Your task to perform on an android device: turn on showing notifications on the lock screen Image 0: 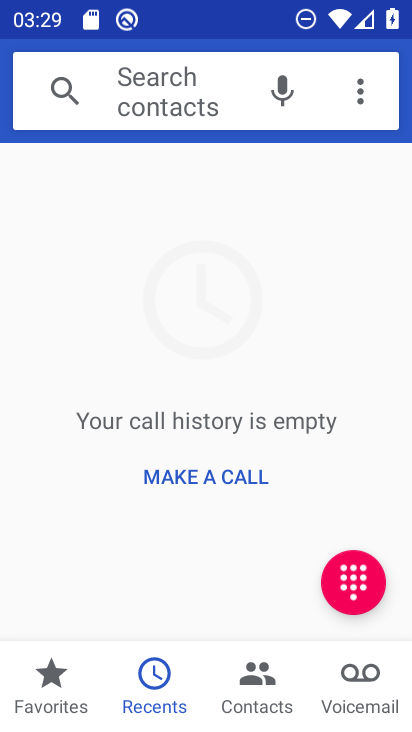
Step 0: press home button
Your task to perform on an android device: turn on showing notifications on the lock screen Image 1: 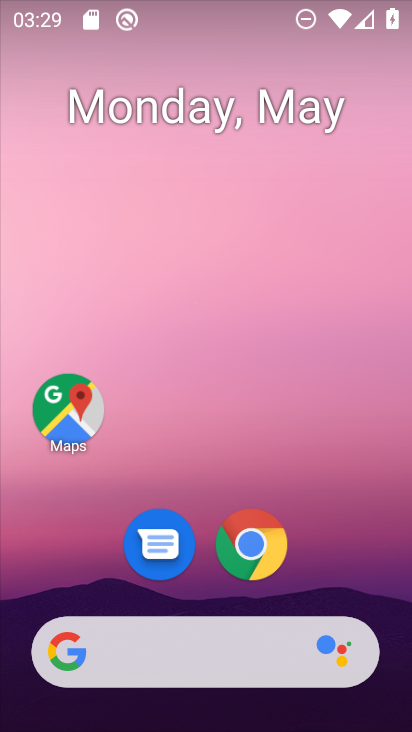
Step 1: drag from (351, 575) to (363, 120)
Your task to perform on an android device: turn on showing notifications on the lock screen Image 2: 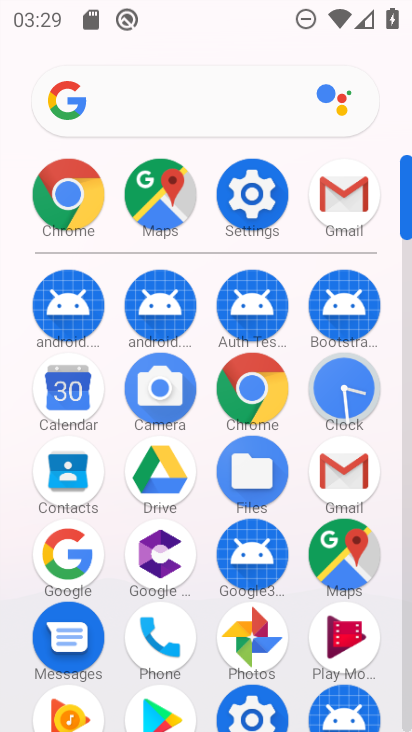
Step 2: click (258, 204)
Your task to perform on an android device: turn on showing notifications on the lock screen Image 3: 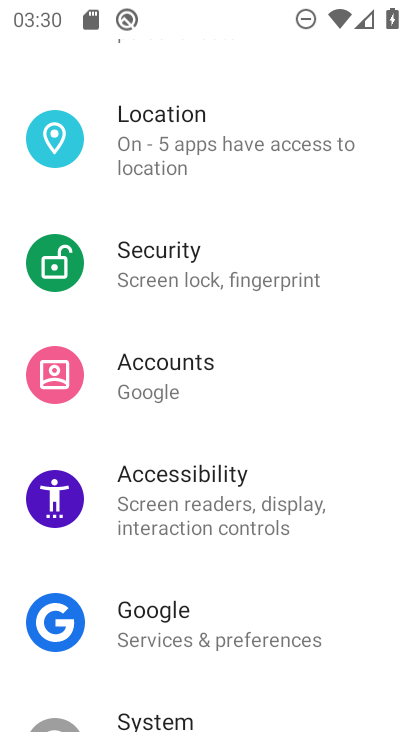
Step 3: drag from (356, 207) to (359, 316)
Your task to perform on an android device: turn on showing notifications on the lock screen Image 4: 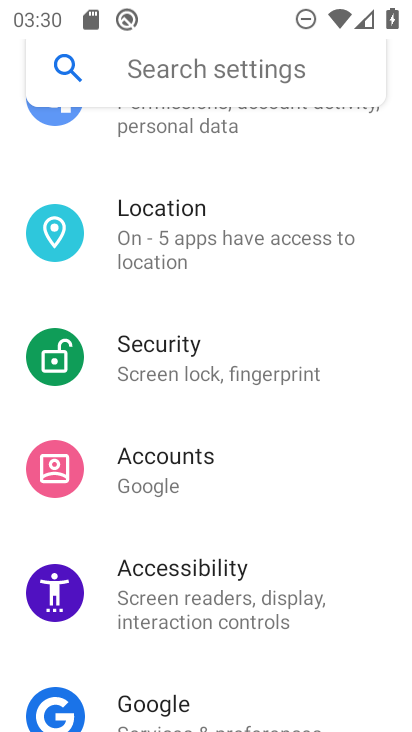
Step 4: drag from (362, 161) to (365, 284)
Your task to perform on an android device: turn on showing notifications on the lock screen Image 5: 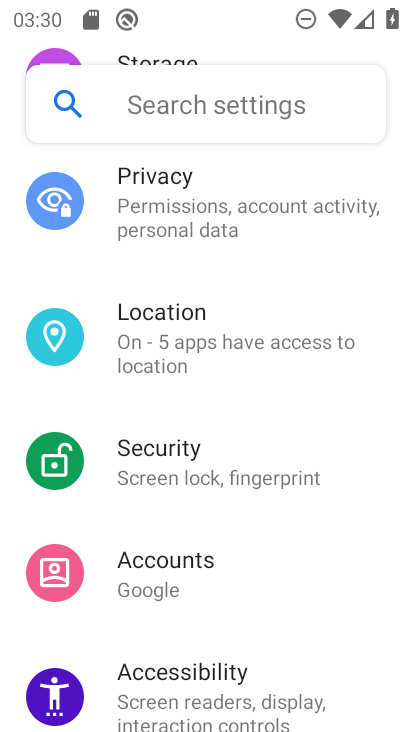
Step 5: drag from (381, 169) to (378, 285)
Your task to perform on an android device: turn on showing notifications on the lock screen Image 6: 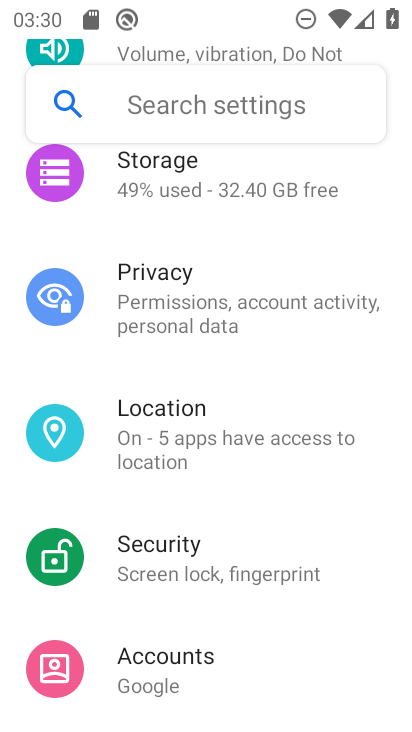
Step 6: drag from (375, 162) to (378, 265)
Your task to perform on an android device: turn on showing notifications on the lock screen Image 7: 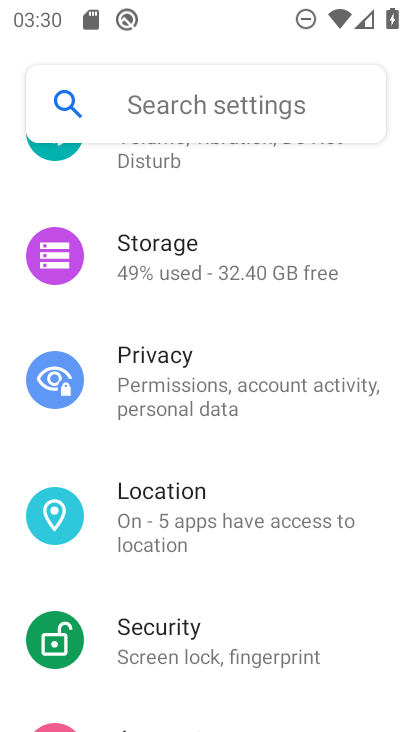
Step 7: drag from (360, 174) to (373, 308)
Your task to perform on an android device: turn on showing notifications on the lock screen Image 8: 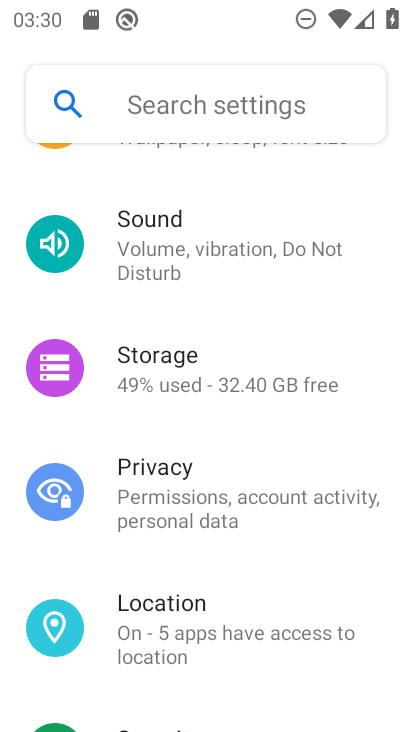
Step 8: drag from (363, 183) to (362, 325)
Your task to perform on an android device: turn on showing notifications on the lock screen Image 9: 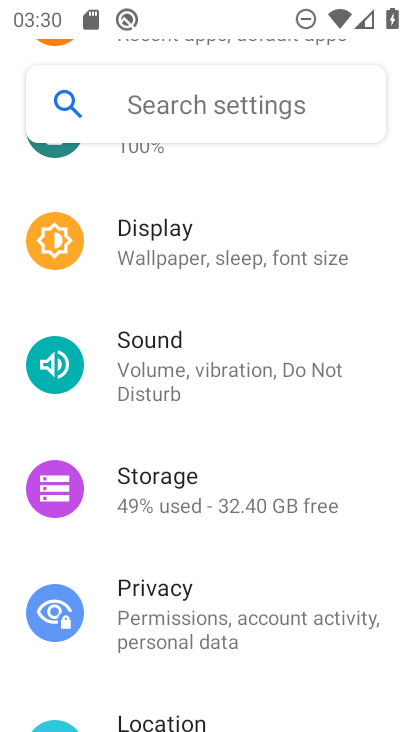
Step 9: drag from (352, 197) to (352, 339)
Your task to perform on an android device: turn on showing notifications on the lock screen Image 10: 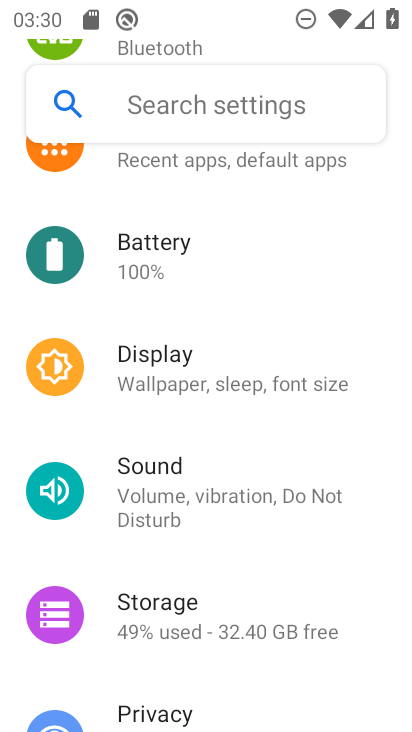
Step 10: drag from (354, 186) to (357, 326)
Your task to perform on an android device: turn on showing notifications on the lock screen Image 11: 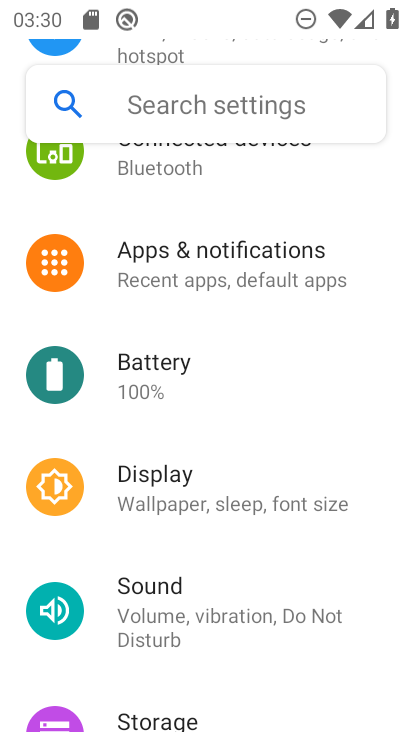
Step 11: drag from (363, 196) to (354, 357)
Your task to perform on an android device: turn on showing notifications on the lock screen Image 12: 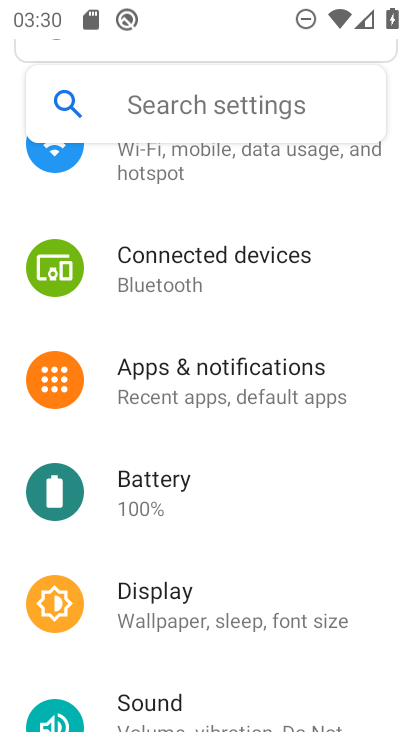
Step 12: click (308, 379)
Your task to perform on an android device: turn on showing notifications on the lock screen Image 13: 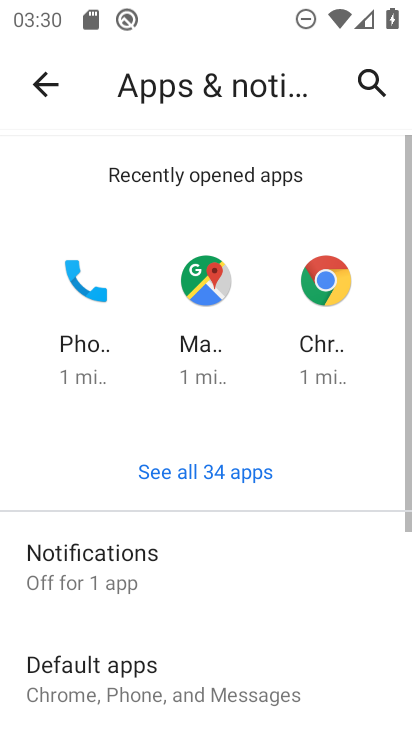
Step 13: drag from (273, 491) to (272, 300)
Your task to perform on an android device: turn on showing notifications on the lock screen Image 14: 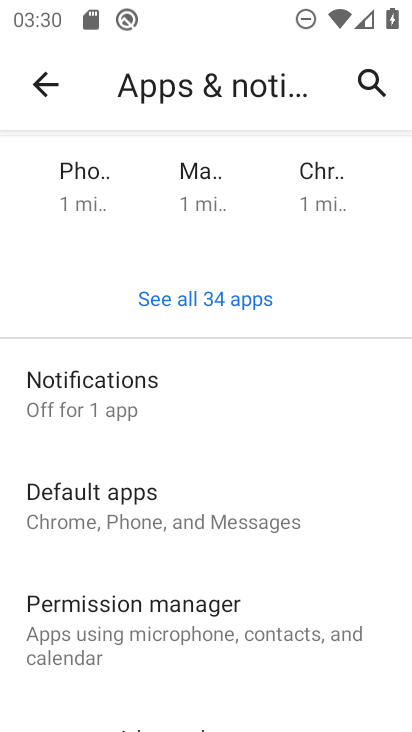
Step 14: drag from (264, 452) to (279, 314)
Your task to perform on an android device: turn on showing notifications on the lock screen Image 15: 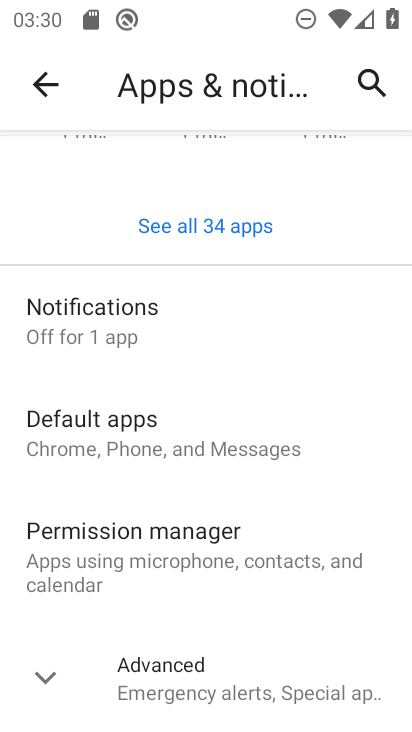
Step 15: click (115, 321)
Your task to perform on an android device: turn on showing notifications on the lock screen Image 16: 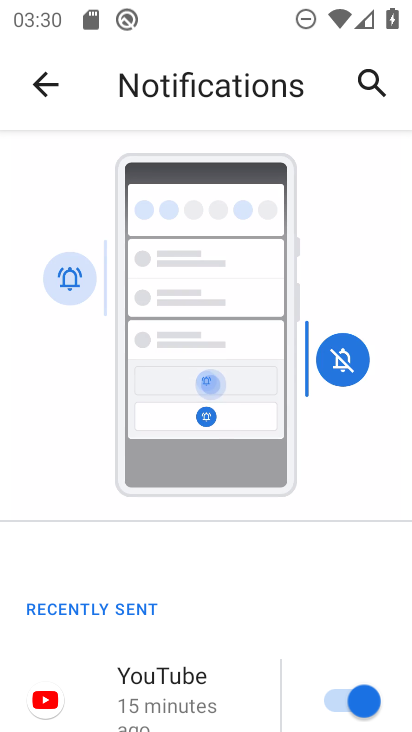
Step 16: drag from (284, 525) to (296, 430)
Your task to perform on an android device: turn on showing notifications on the lock screen Image 17: 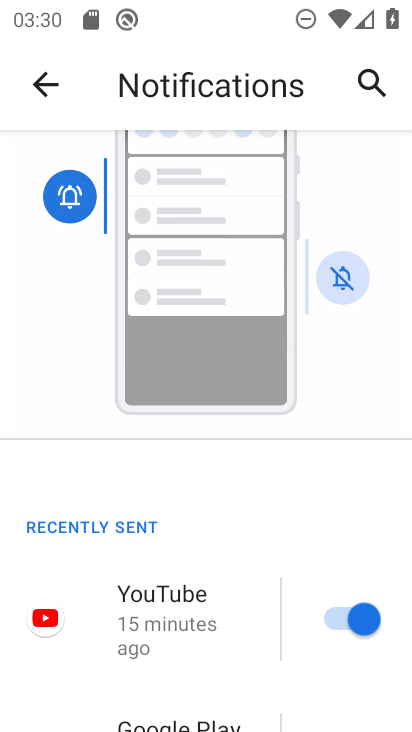
Step 17: drag from (245, 573) to (244, 422)
Your task to perform on an android device: turn on showing notifications on the lock screen Image 18: 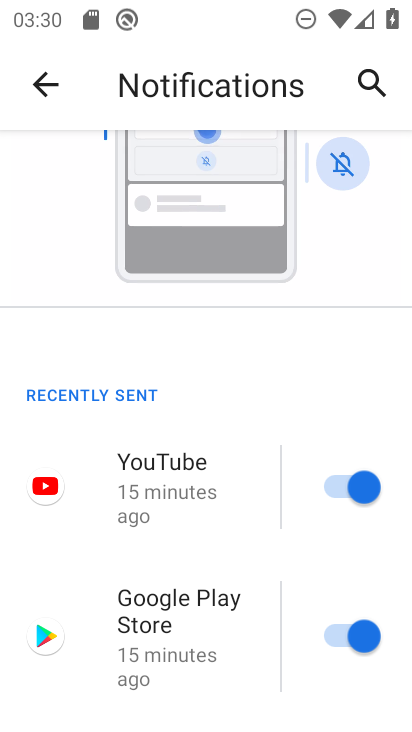
Step 18: drag from (248, 591) to (254, 456)
Your task to perform on an android device: turn on showing notifications on the lock screen Image 19: 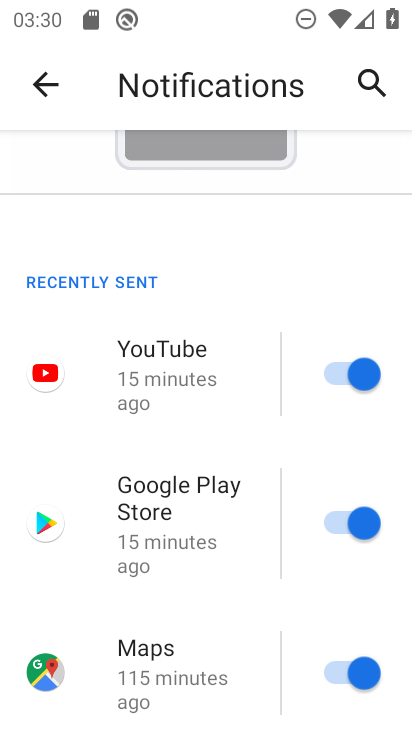
Step 19: drag from (245, 605) to (245, 470)
Your task to perform on an android device: turn on showing notifications on the lock screen Image 20: 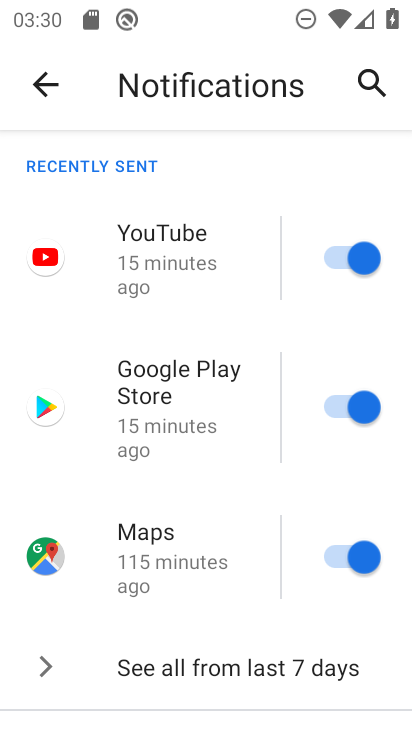
Step 20: drag from (246, 619) to (251, 482)
Your task to perform on an android device: turn on showing notifications on the lock screen Image 21: 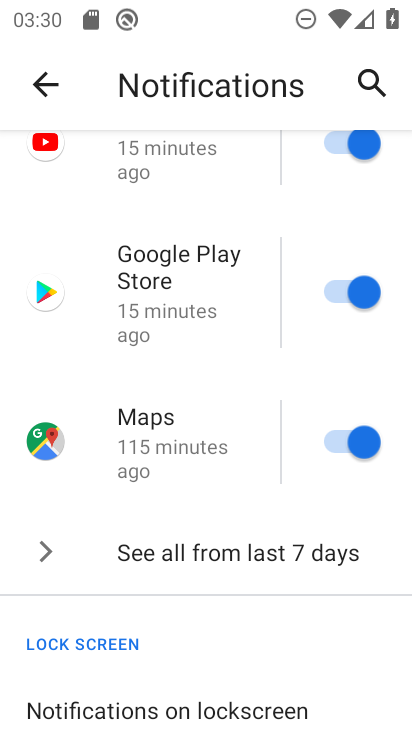
Step 21: drag from (251, 613) to (257, 455)
Your task to perform on an android device: turn on showing notifications on the lock screen Image 22: 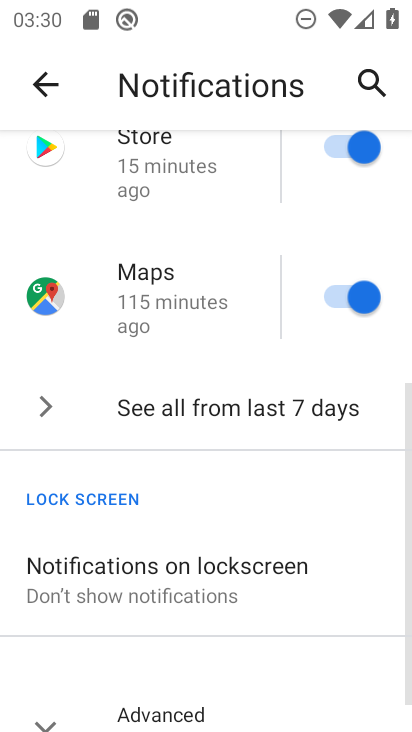
Step 22: click (257, 600)
Your task to perform on an android device: turn on showing notifications on the lock screen Image 23: 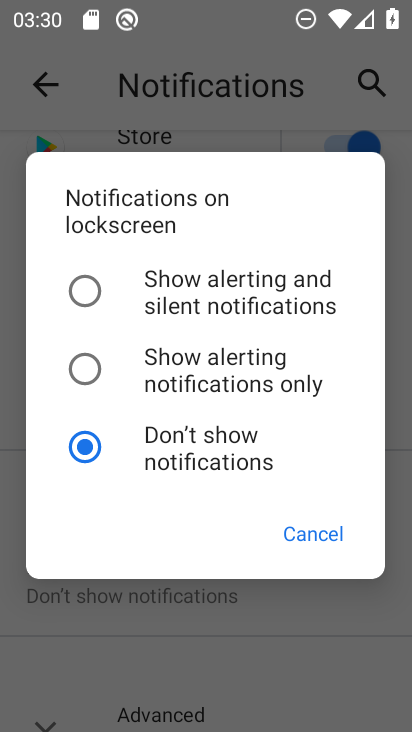
Step 23: click (87, 294)
Your task to perform on an android device: turn on showing notifications on the lock screen Image 24: 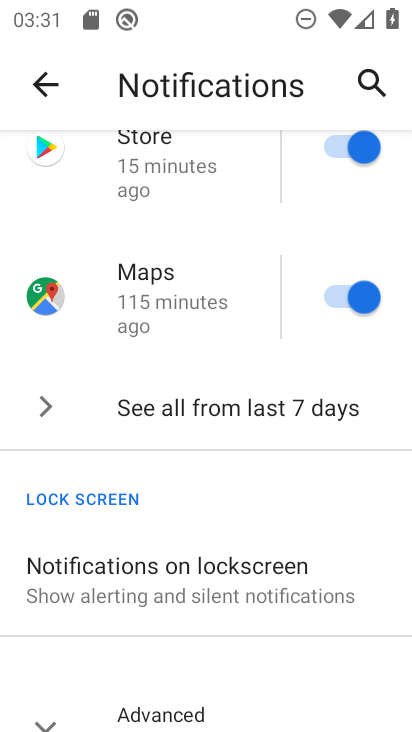
Step 24: task complete